Your task to perform on an android device: turn on sleep mode Image 0: 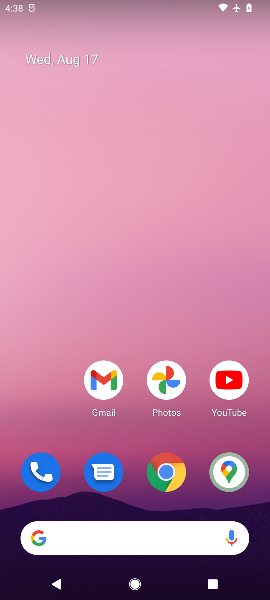
Step 0: drag from (113, 513) to (170, 134)
Your task to perform on an android device: turn on sleep mode Image 1: 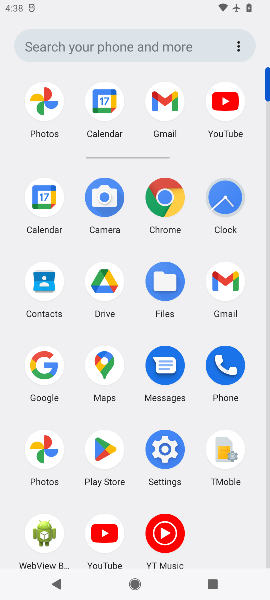
Step 1: click (163, 466)
Your task to perform on an android device: turn on sleep mode Image 2: 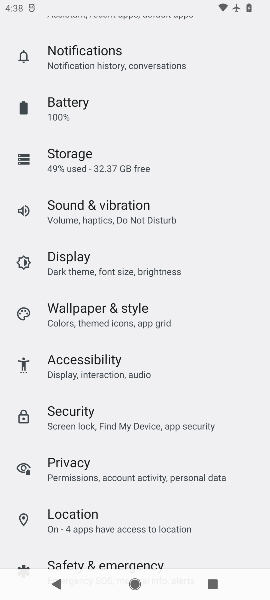
Step 2: drag from (164, 86) to (130, 365)
Your task to perform on an android device: turn on sleep mode Image 3: 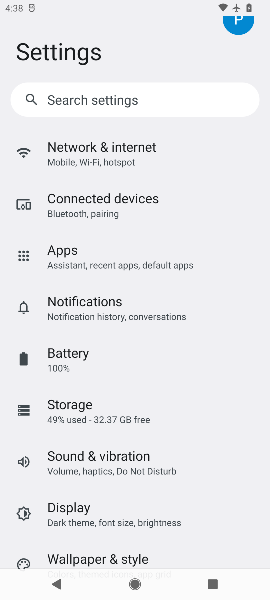
Step 3: click (111, 100)
Your task to perform on an android device: turn on sleep mode Image 4: 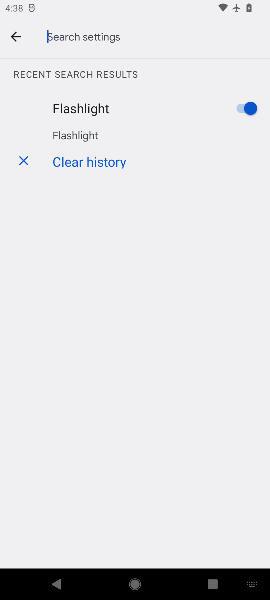
Step 4: type "sleep mode"
Your task to perform on an android device: turn on sleep mode Image 5: 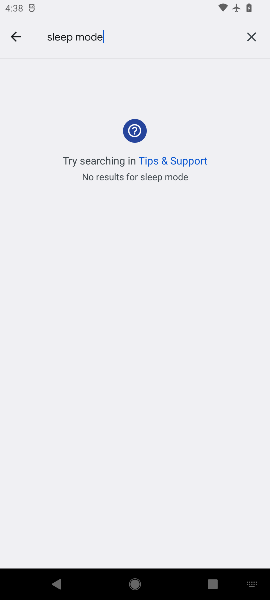
Step 5: task complete